Your task to perform on an android device: turn off improve location accuracy Image 0: 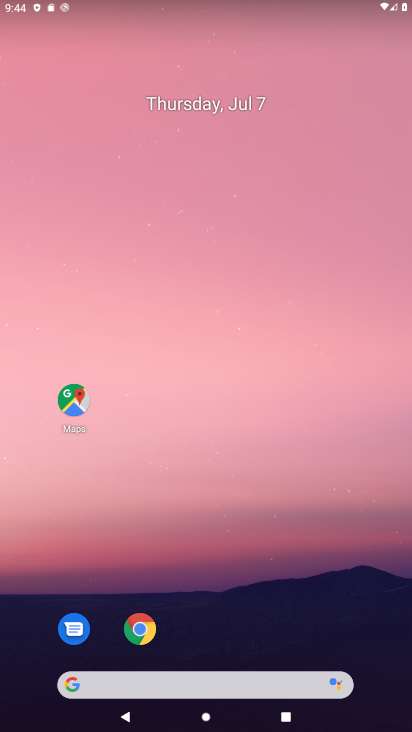
Step 0: drag from (207, 628) to (268, 85)
Your task to perform on an android device: turn off improve location accuracy Image 1: 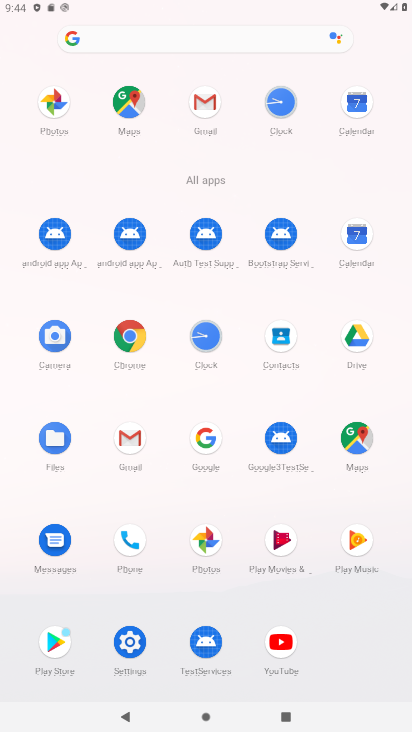
Step 1: click (131, 639)
Your task to perform on an android device: turn off improve location accuracy Image 2: 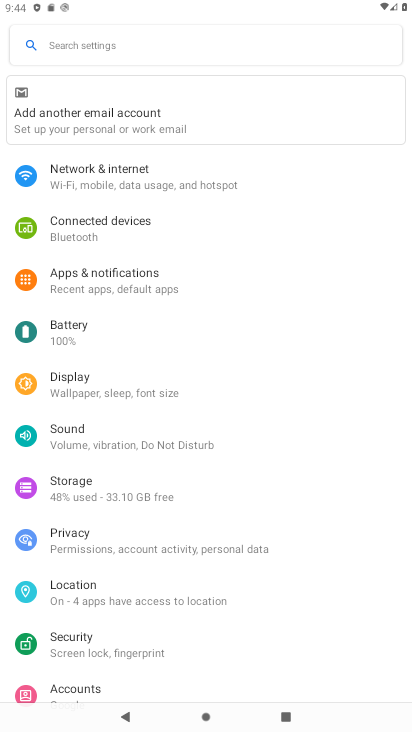
Step 2: click (95, 600)
Your task to perform on an android device: turn off improve location accuracy Image 3: 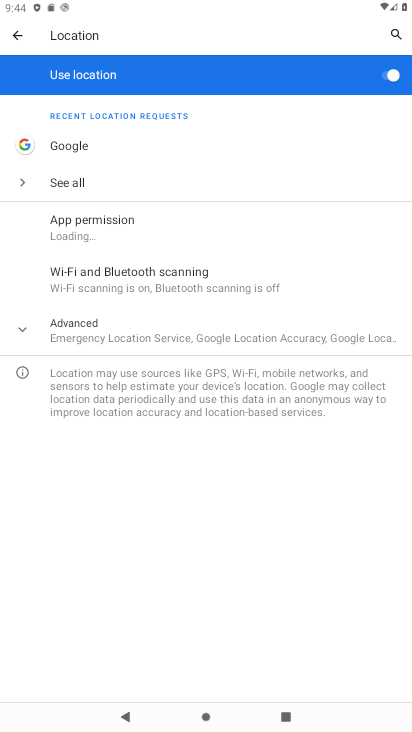
Step 3: click (164, 323)
Your task to perform on an android device: turn off improve location accuracy Image 4: 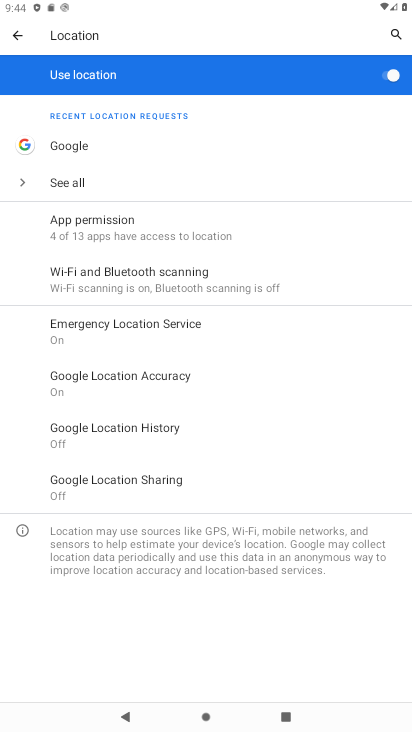
Step 4: click (170, 384)
Your task to perform on an android device: turn off improve location accuracy Image 5: 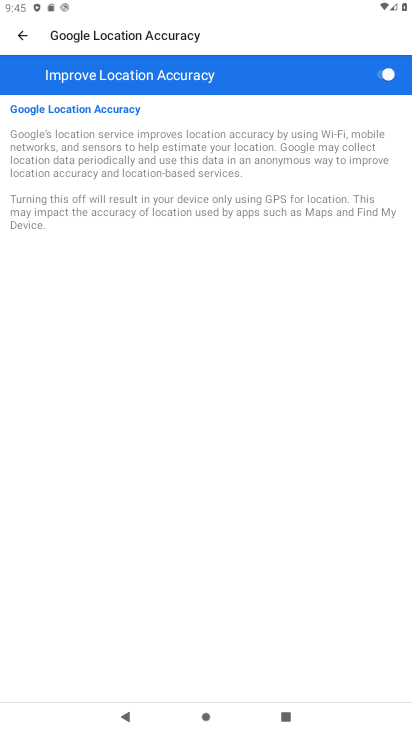
Step 5: click (390, 79)
Your task to perform on an android device: turn off improve location accuracy Image 6: 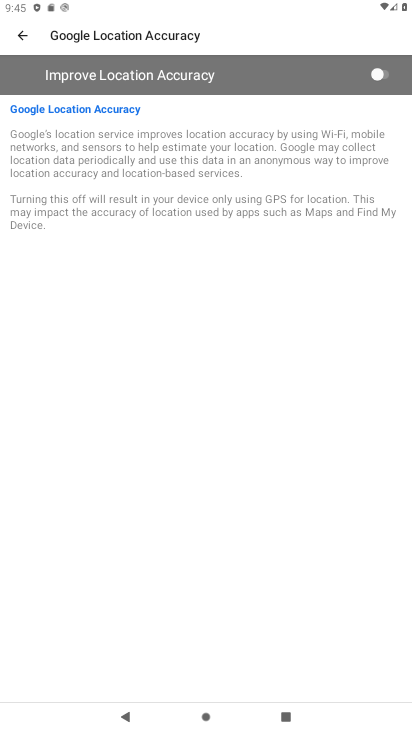
Step 6: task complete